Your task to perform on an android device: Search for Italian restaurants on Maps Image 0: 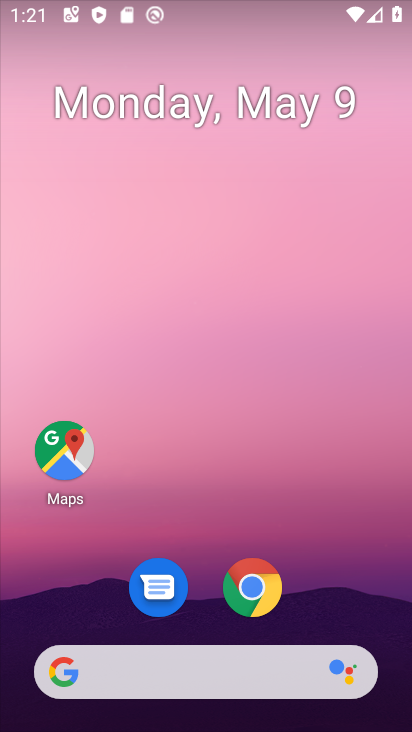
Step 0: click (79, 454)
Your task to perform on an android device: Search for Italian restaurants on Maps Image 1: 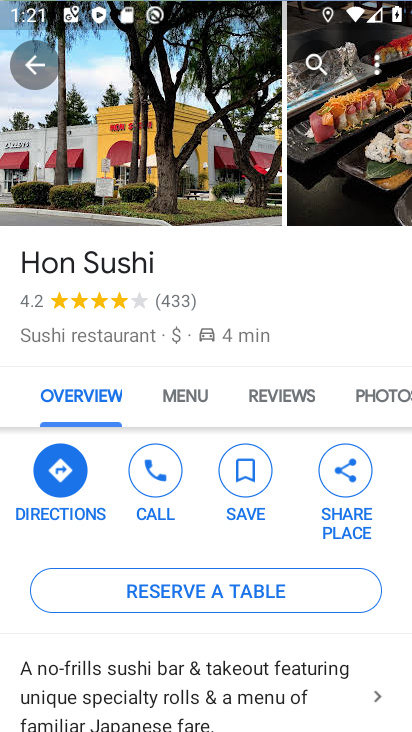
Step 1: click (46, 68)
Your task to perform on an android device: Search for Italian restaurants on Maps Image 2: 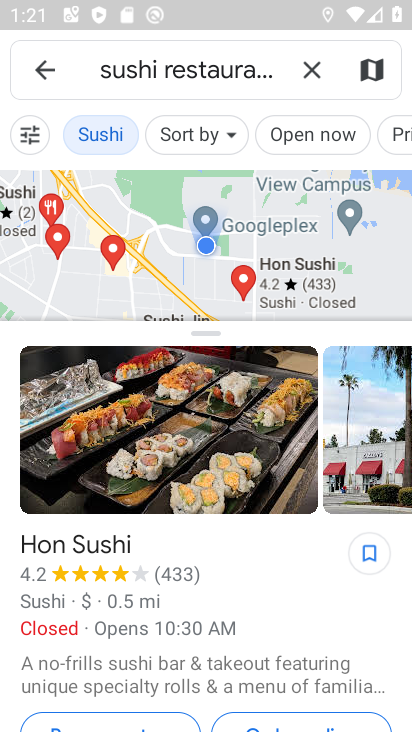
Step 2: click (316, 75)
Your task to perform on an android device: Search for Italian restaurants on Maps Image 3: 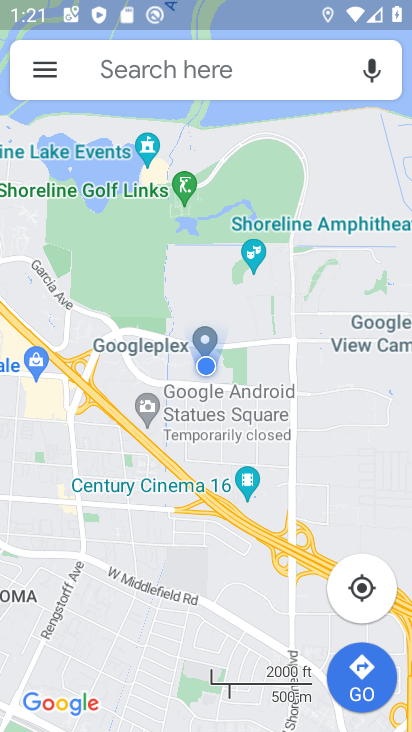
Step 3: click (316, 76)
Your task to perform on an android device: Search for Italian restaurants on Maps Image 4: 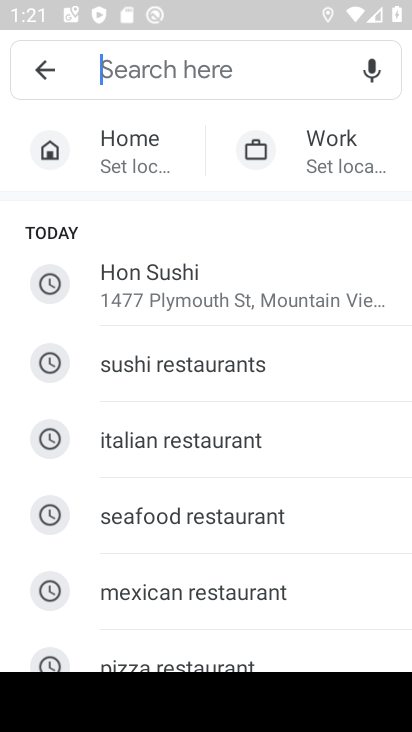
Step 4: type "Italian restaurants "
Your task to perform on an android device: Search for Italian restaurants on Maps Image 5: 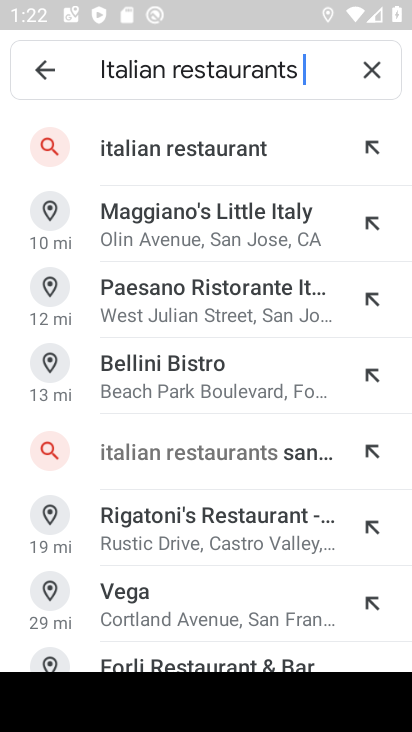
Step 5: click (276, 138)
Your task to perform on an android device: Search for Italian restaurants on Maps Image 6: 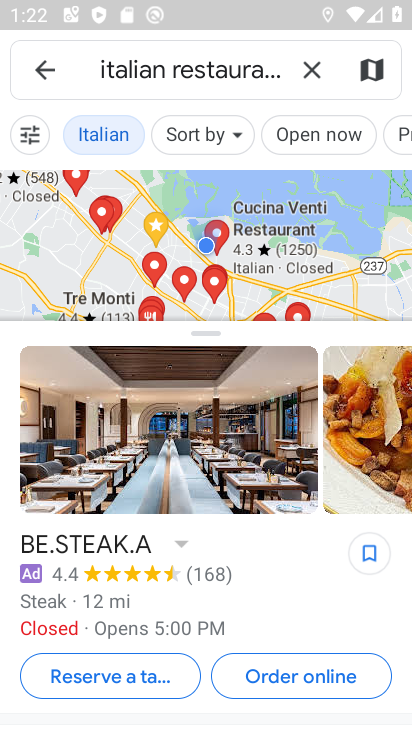
Step 6: task complete